Your task to perform on an android device: open app "Facebook Lite" Image 0: 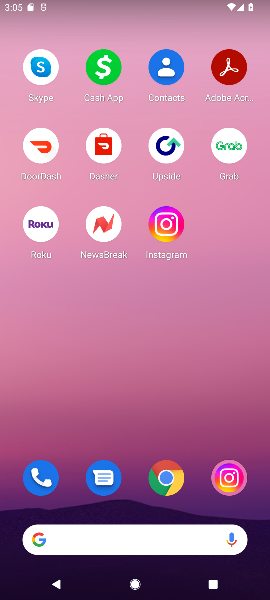
Step 0: press home button
Your task to perform on an android device: open app "Facebook Lite" Image 1: 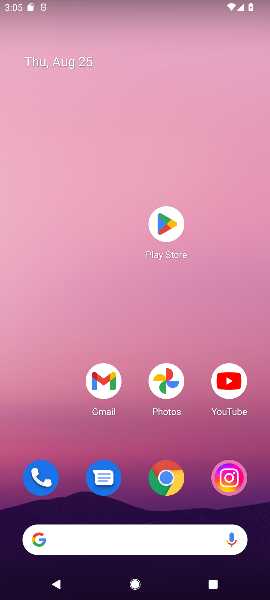
Step 1: click (164, 223)
Your task to perform on an android device: open app "Facebook Lite" Image 2: 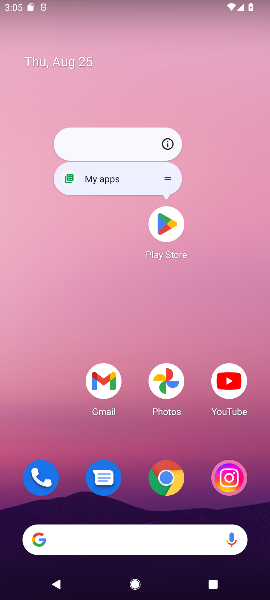
Step 2: click (164, 222)
Your task to perform on an android device: open app "Facebook Lite" Image 3: 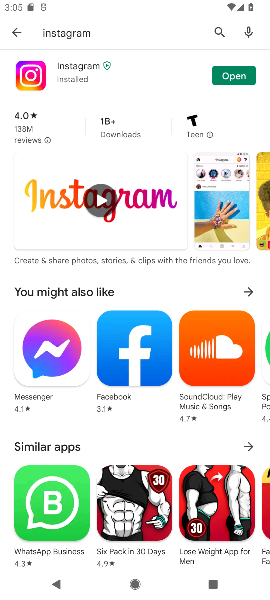
Step 3: click (219, 32)
Your task to perform on an android device: open app "Facebook Lite" Image 4: 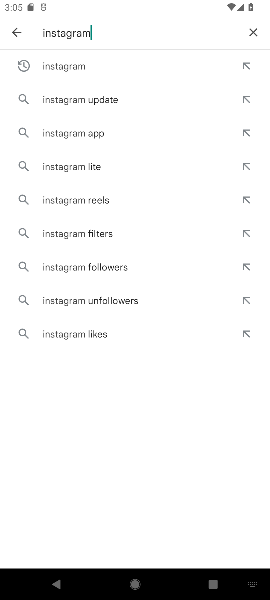
Step 4: click (247, 31)
Your task to perform on an android device: open app "Facebook Lite" Image 5: 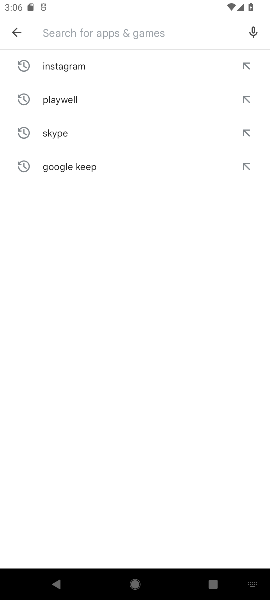
Step 5: type "Facebook Lite"
Your task to perform on an android device: open app "Facebook Lite" Image 6: 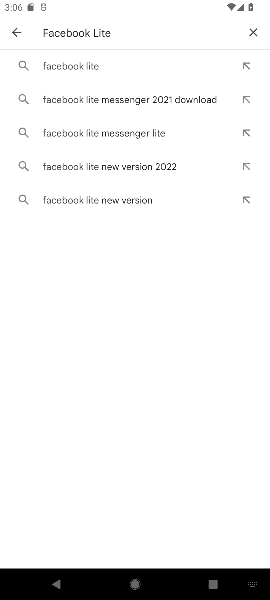
Step 6: click (92, 66)
Your task to perform on an android device: open app "Facebook Lite" Image 7: 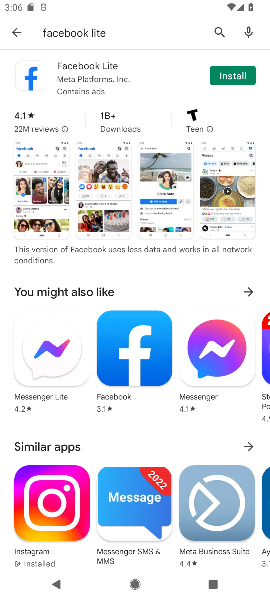
Step 7: task complete